Your task to perform on an android device: turn off wifi Image 0: 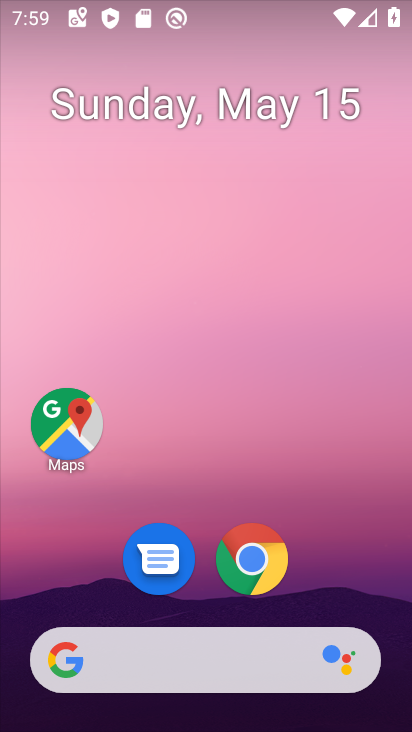
Step 0: drag from (338, 537) to (337, 139)
Your task to perform on an android device: turn off wifi Image 1: 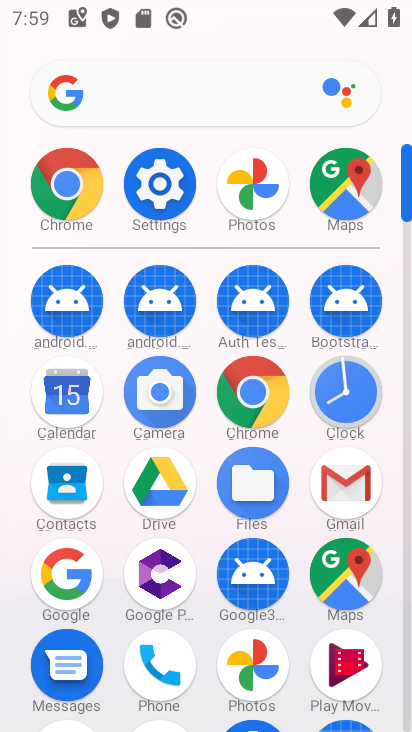
Step 1: click (162, 178)
Your task to perform on an android device: turn off wifi Image 2: 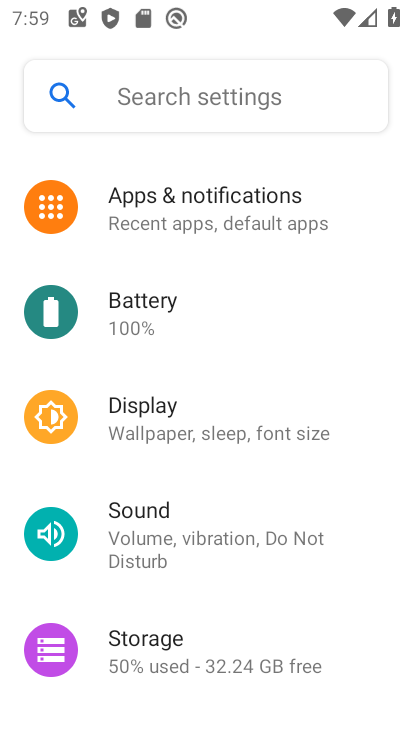
Step 2: drag from (203, 189) to (199, 617)
Your task to perform on an android device: turn off wifi Image 3: 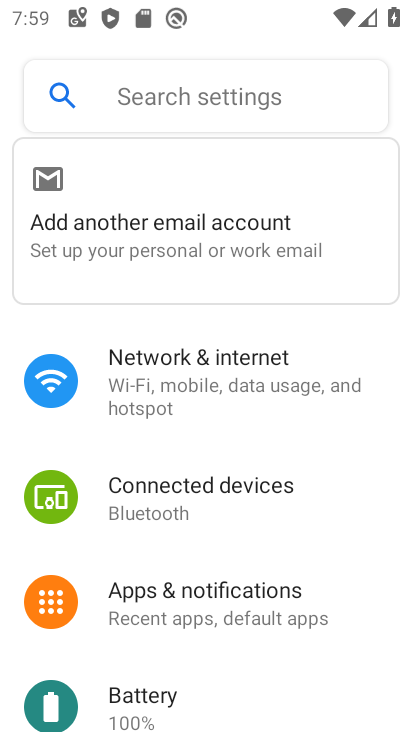
Step 3: click (222, 357)
Your task to perform on an android device: turn off wifi Image 4: 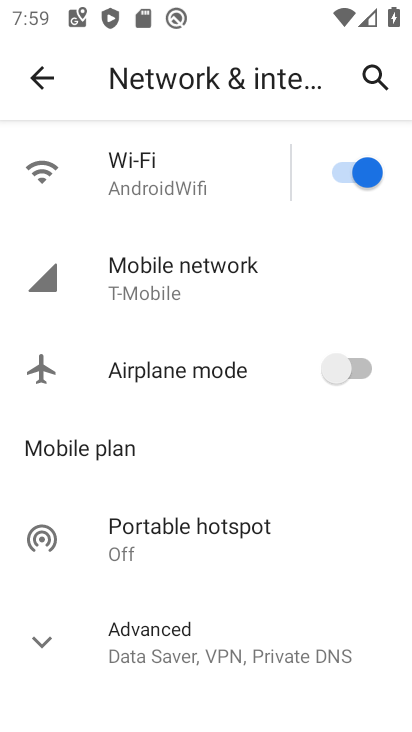
Step 4: click (365, 174)
Your task to perform on an android device: turn off wifi Image 5: 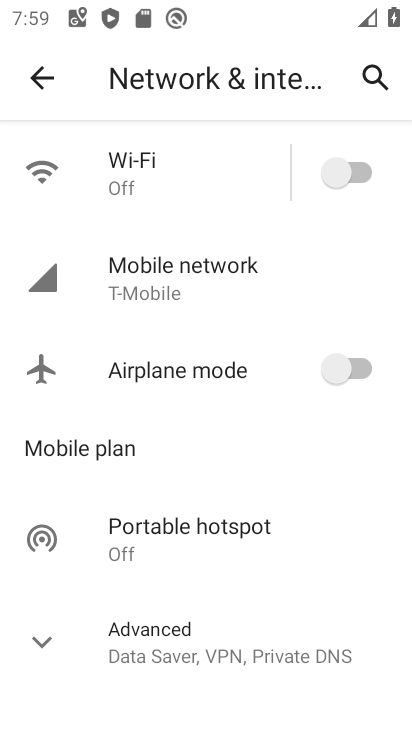
Step 5: task complete